Your task to perform on an android device: turn off picture-in-picture Image 0: 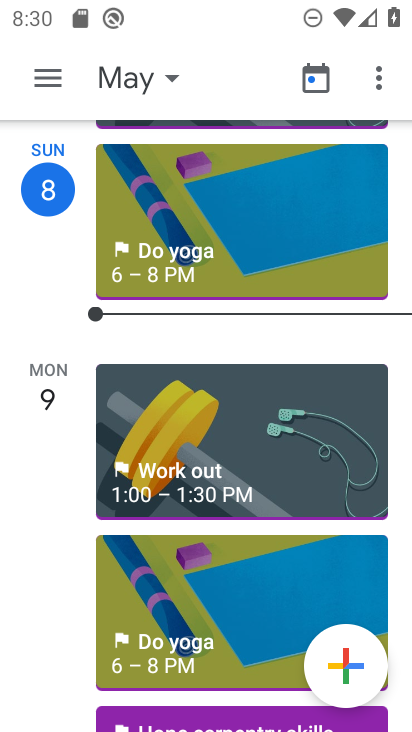
Step 0: press home button
Your task to perform on an android device: turn off picture-in-picture Image 1: 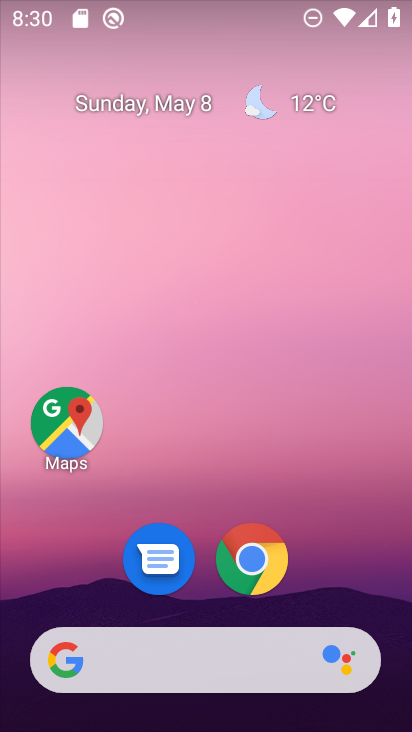
Step 1: drag from (229, 565) to (234, 473)
Your task to perform on an android device: turn off picture-in-picture Image 2: 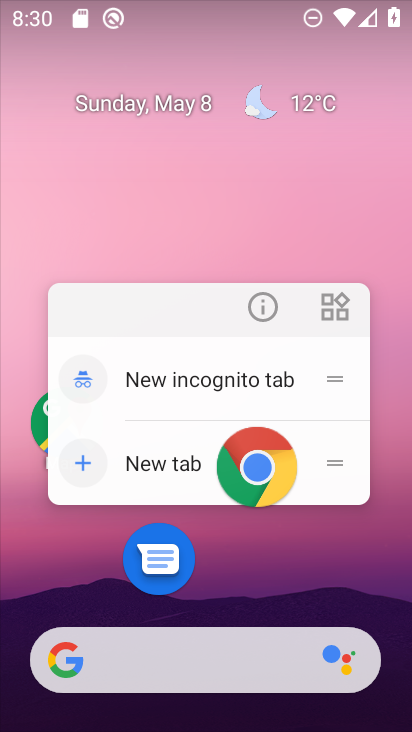
Step 2: click (245, 308)
Your task to perform on an android device: turn off picture-in-picture Image 3: 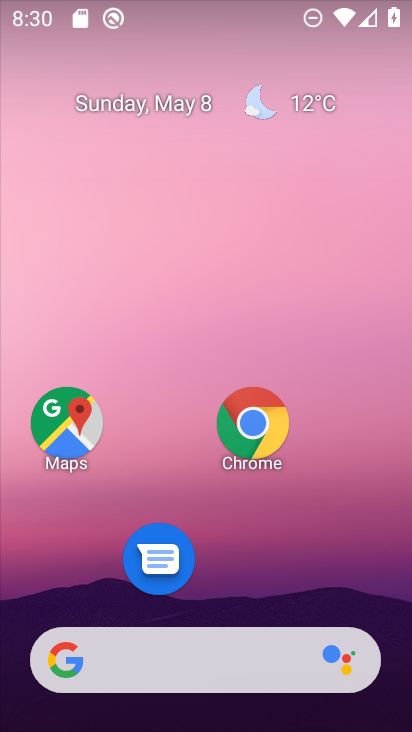
Step 3: click (258, 420)
Your task to perform on an android device: turn off picture-in-picture Image 4: 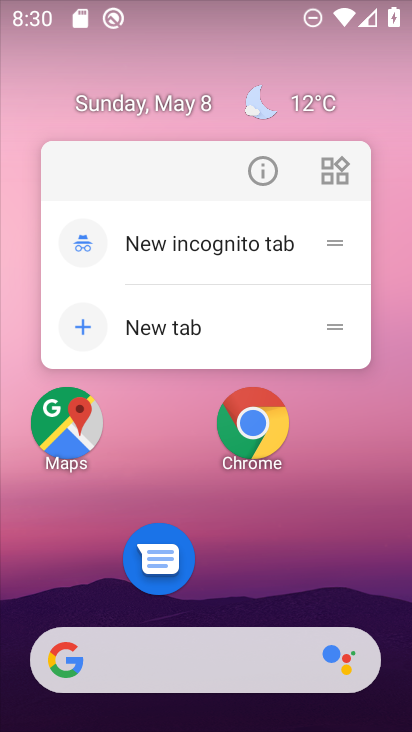
Step 4: click (274, 184)
Your task to perform on an android device: turn off picture-in-picture Image 5: 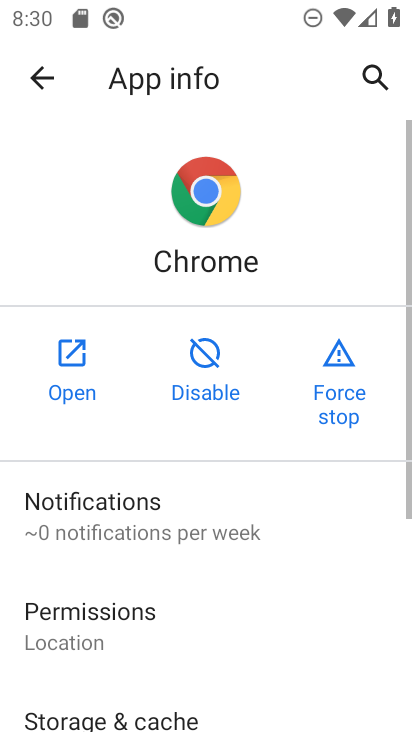
Step 5: drag from (229, 599) to (224, 43)
Your task to perform on an android device: turn off picture-in-picture Image 6: 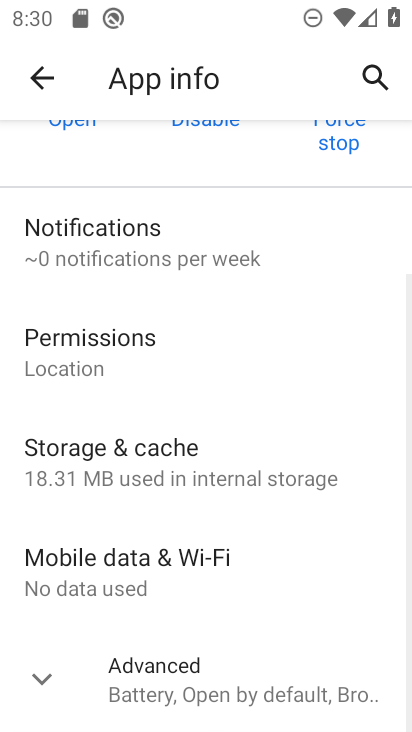
Step 6: drag from (213, 639) to (235, 215)
Your task to perform on an android device: turn off picture-in-picture Image 7: 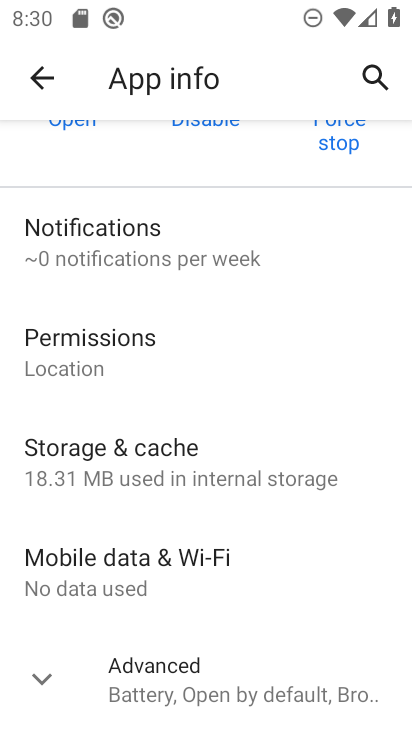
Step 7: click (45, 684)
Your task to perform on an android device: turn off picture-in-picture Image 8: 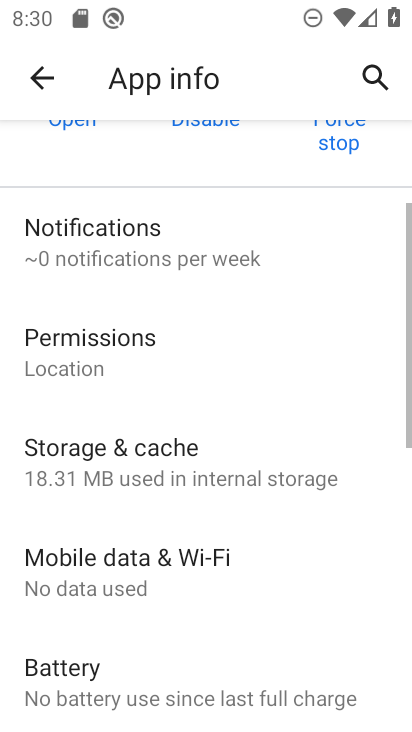
Step 8: drag from (182, 349) to (193, 115)
Your task to perform on an android device: turn off picture-in-picture Image 9: 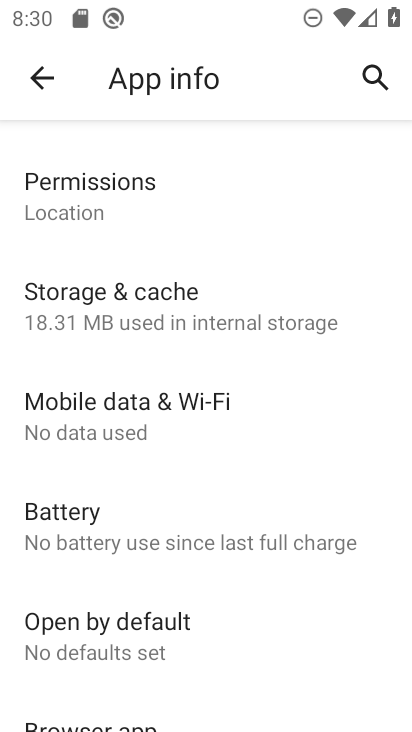
Step 9: drag from (238, 613) to (242, 179)
Your task to perform on an android device: turn off picture-in-picture Image 10: 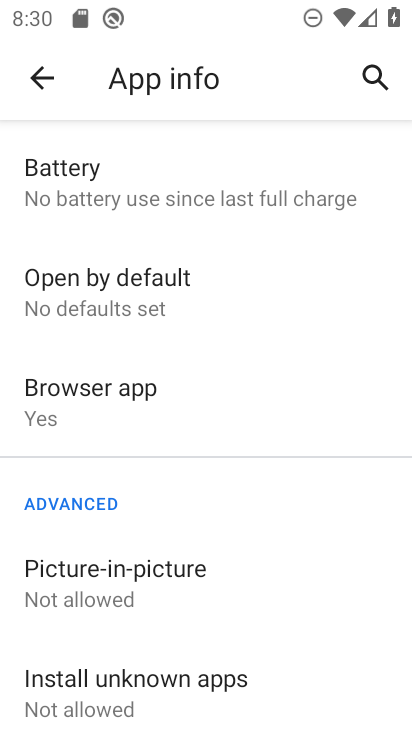
Step 10: click (124, 588)
Your task to perform on an android device: turn off picture-in-picture Image 11: 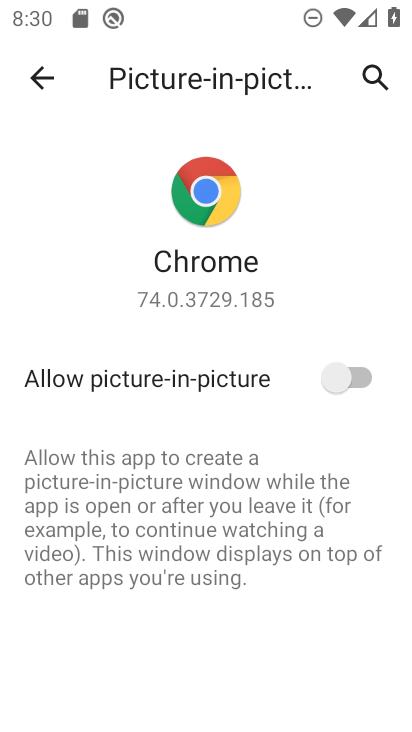
Step 11: task complete